Your task to perform on an android device: delete location history Image 0: 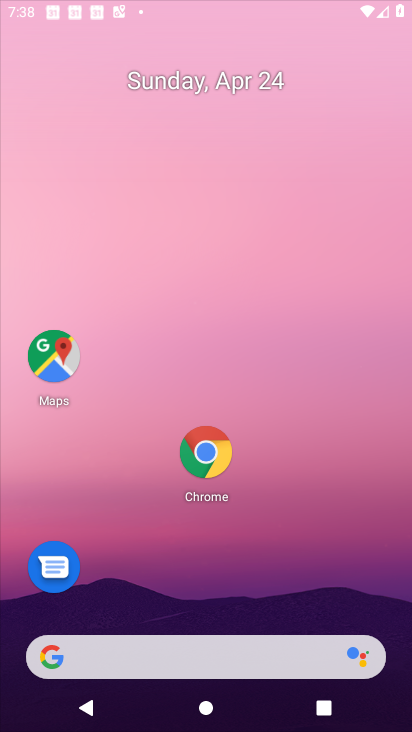
Step 0: drag from (330, 534) to (237, 5)
Your task to perform on an android device: delete location history Image 1: 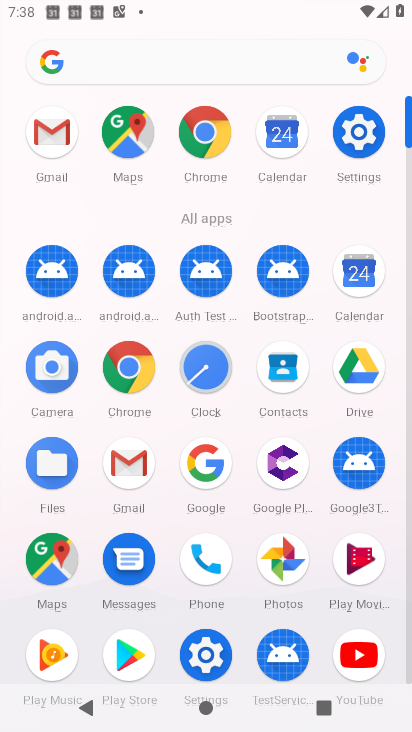
Step 1: click (124, 118)
Your task to perform on an android device: delete location history Image 2: 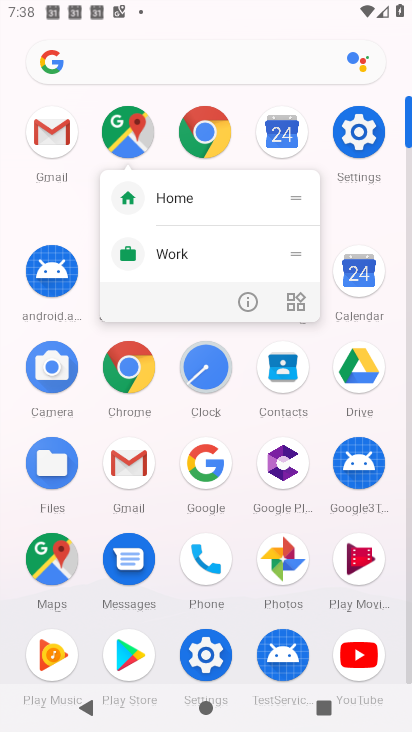
Step 2: click (124, 118)
Your task to perform on an android device: delete location history Image 3: 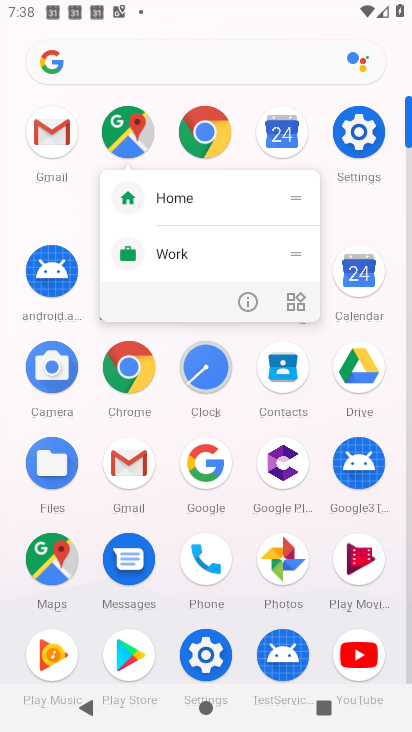
Step 3: click (124, 118)
Your task to perform on an android device: delete location history Image 4: 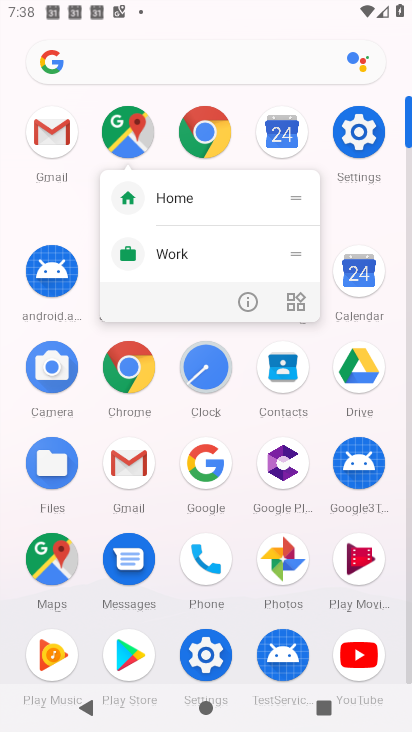
Step 4: click (124, 118)
Your task to perform on an android device: delete location history Image 5: 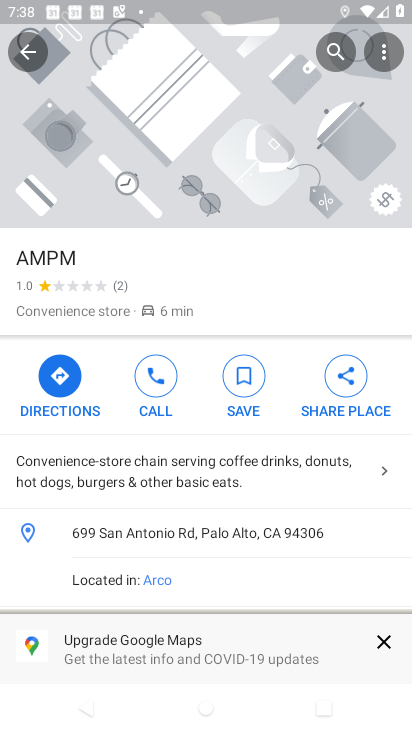
Step 5: click (124, 118)
Your task to perform on an android device: delete location history Image 6: 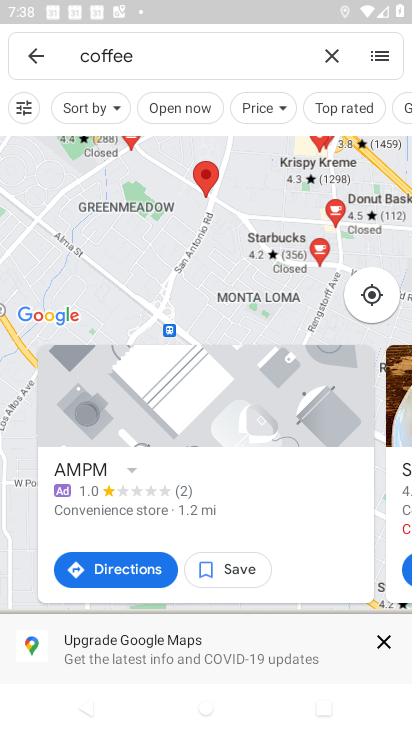
Step 6: click (25, 64)
Your task to perform on an android device: delete location history Image 7: 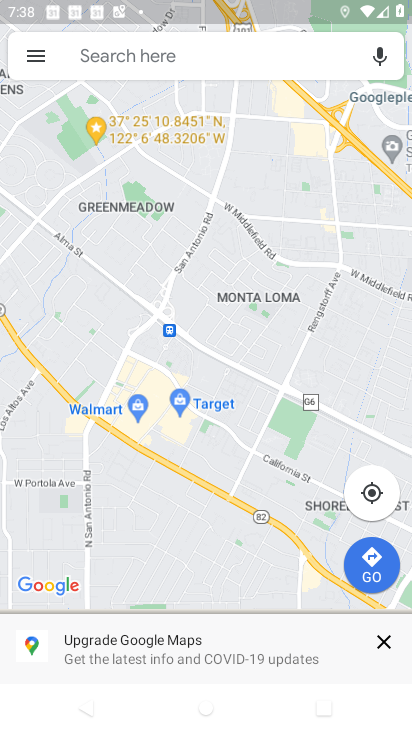
Step 7: click (25, 64)
Your task to perform on an android device: delete location history Image 8: 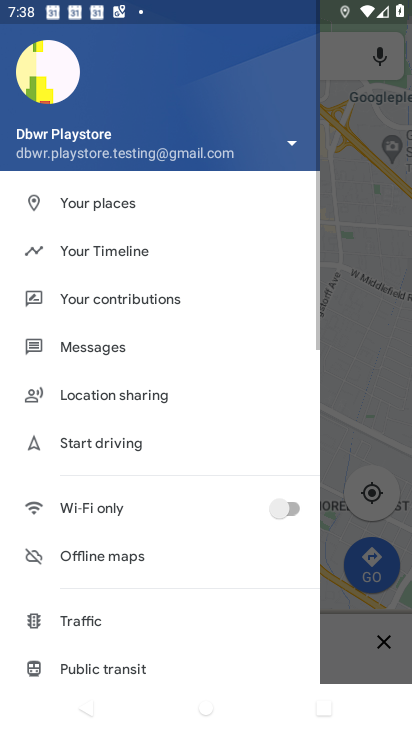
Step 8: click (100, 242)
Your task to perform on an android device: delete location history Image 9: 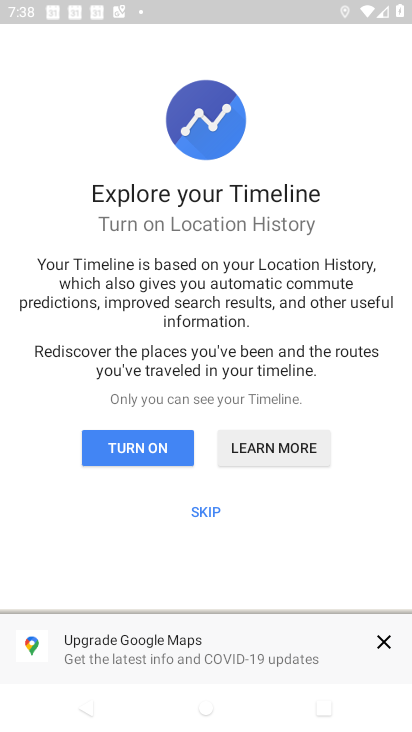
Step 9: click (196, 504)
Your task to perform on an android device: delete location history Image 10: 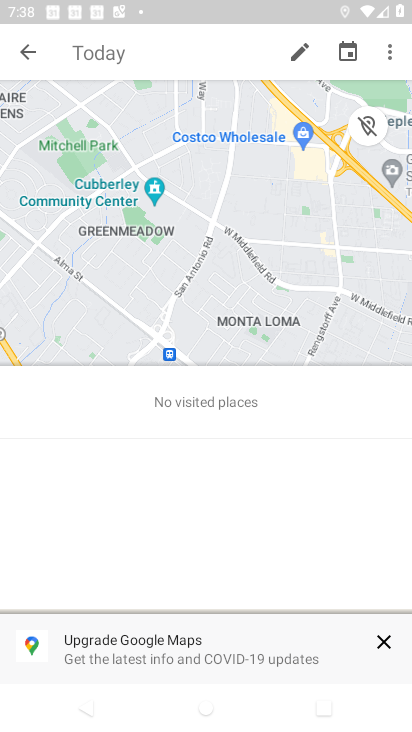
Step 10: click (392, 52)
Your task to perform on an android device: delete location history Image 11: 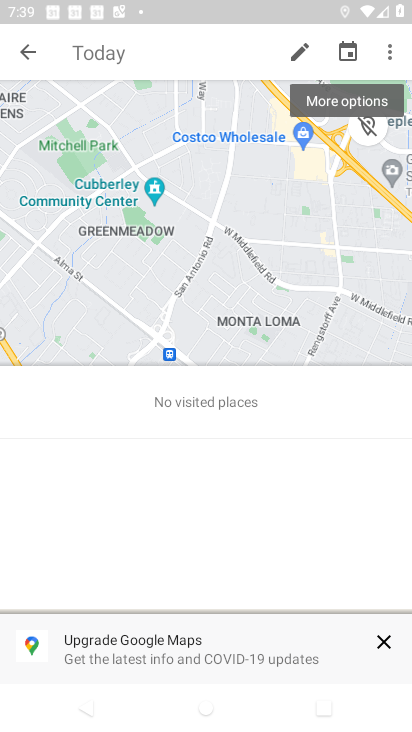
Step 11: click (393, 57)
Your task to perform on an android device: delete location history Image 12: 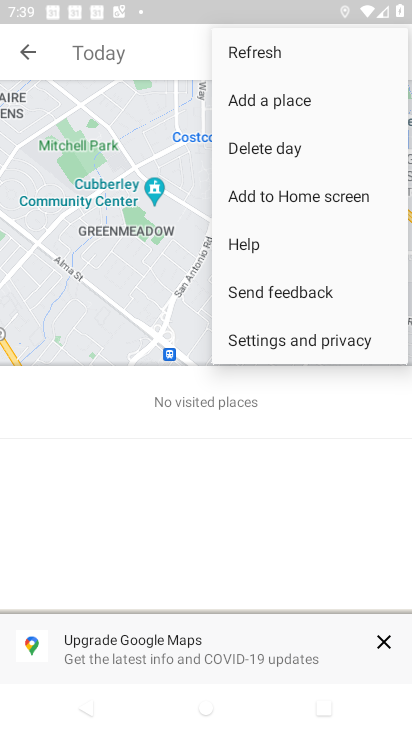
Step 12: click (291, 353)
Your task to perform on an android device: delete location history Image 13: 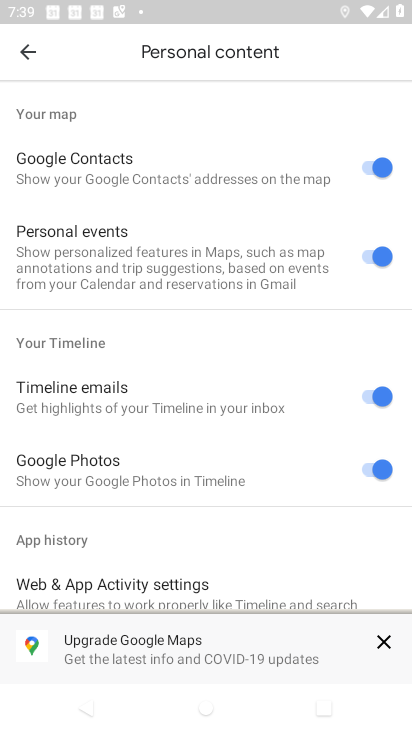
Step 13: drag from (177, 448) to (127, 262)
Your task to perform on an android device: delete location history Image 14: 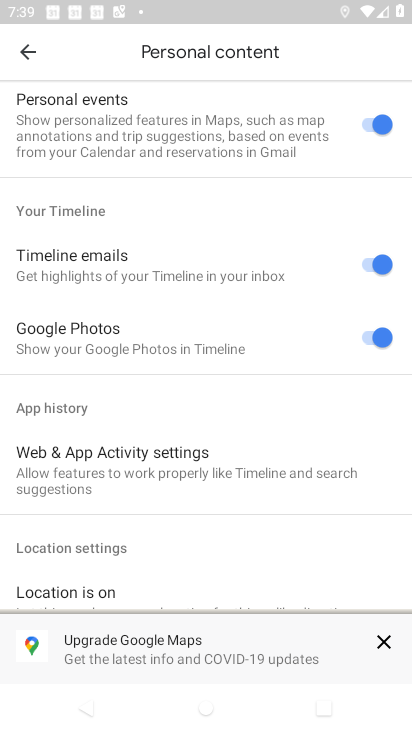
Step 14: drag from (168, 480) to (135, 179)
Your task to perform on an android device: delete location history Image 15: 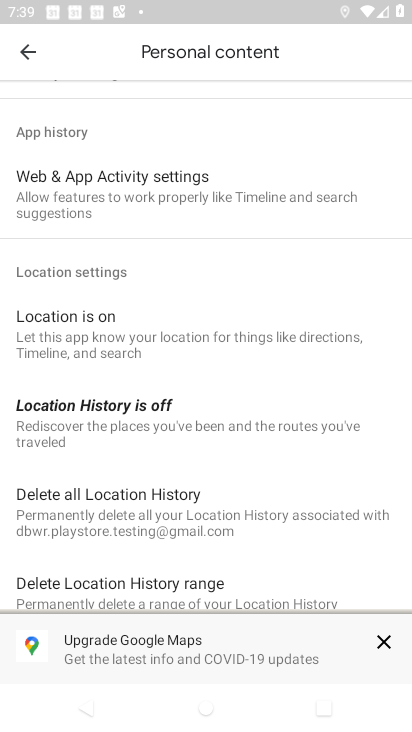
Step 15: drag from (153, 510) to (116, 300)
Your task to perform on an android device: delete location history Image 16: 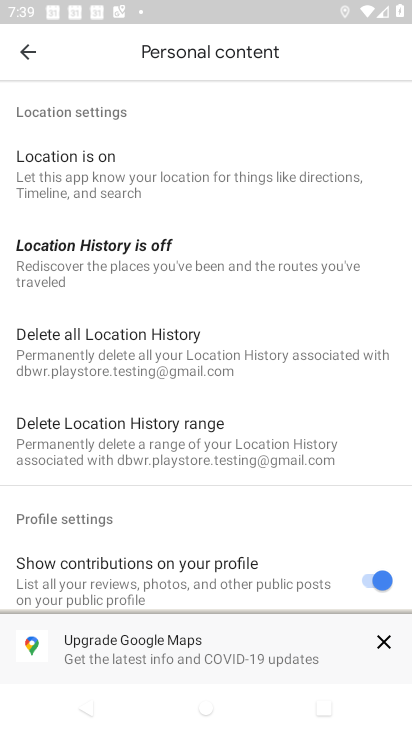
Step 16: click (93, 342)
Your task to perform on an android device: delete location history Image 17: 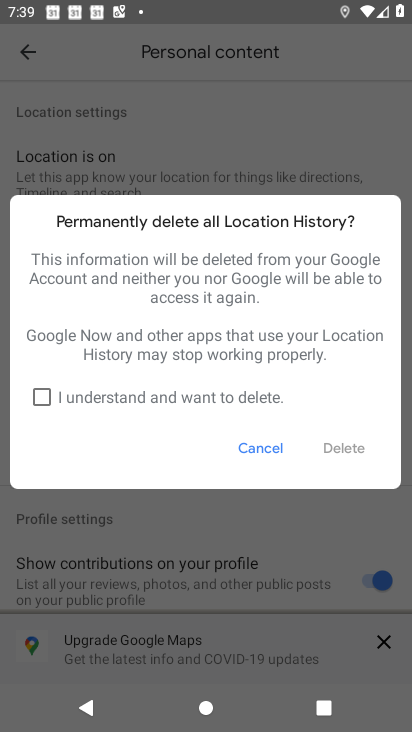
Step 17: click (60, 410)
Your task to perform on an android device: delete location history Image 18: 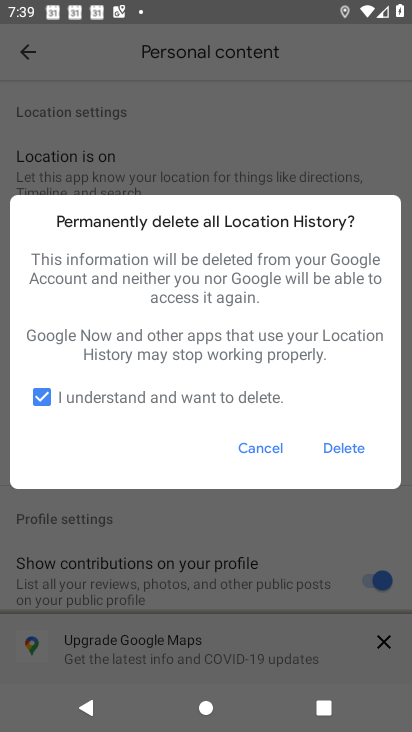
Step 18: click (340, 441)
Your task to perform on an android device: delete location history Image 19: 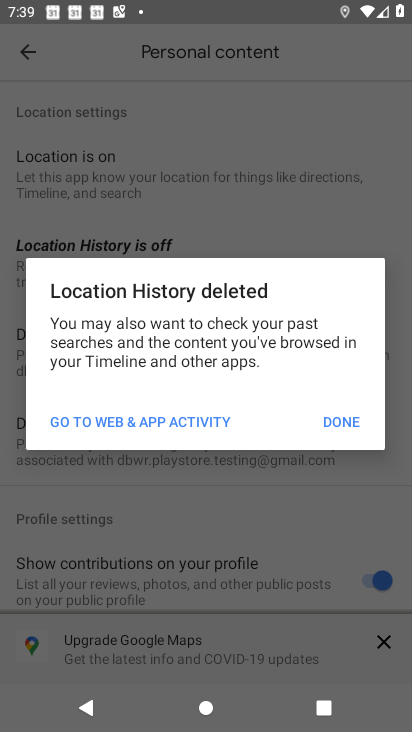
Step 19: click (330, 421)
Your task to perform on an android device: delete location history Image 20: 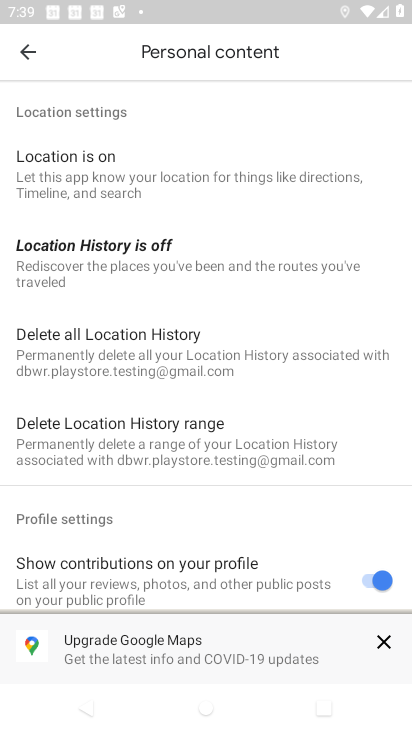
Step 20: task complete